Your task to perform on an android device: make emails show in primary in the gmail app Image 0: 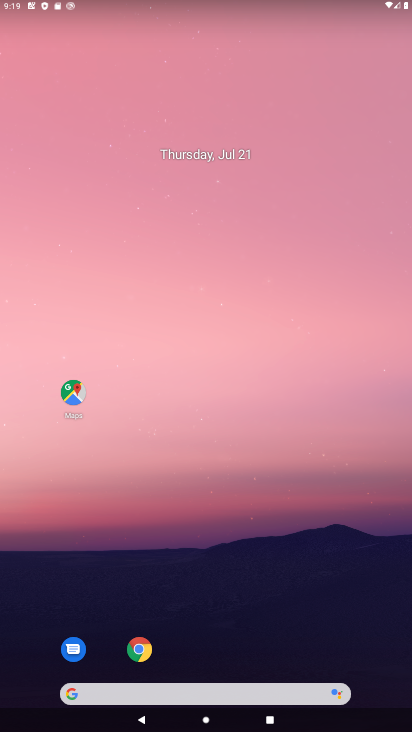
Step 0: drag from (238, 621) to (248, 17)
Your task to perform on an android device: make emails show in primary in the gmail app Image 1: 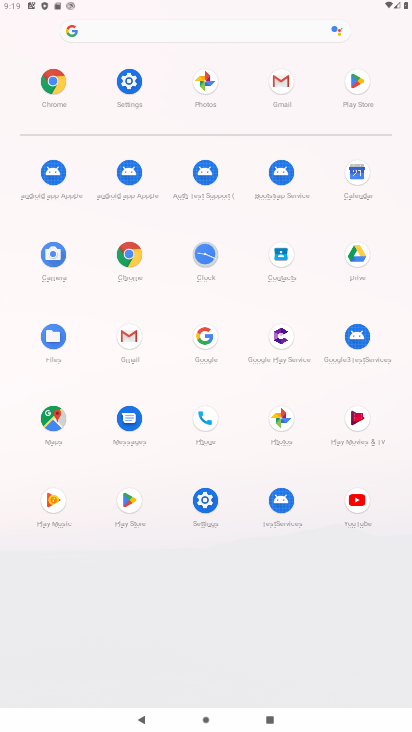
Step 1: click (135, 336)
Your task to perform on an android device: make emails show in primary in the gmail app Image 2: 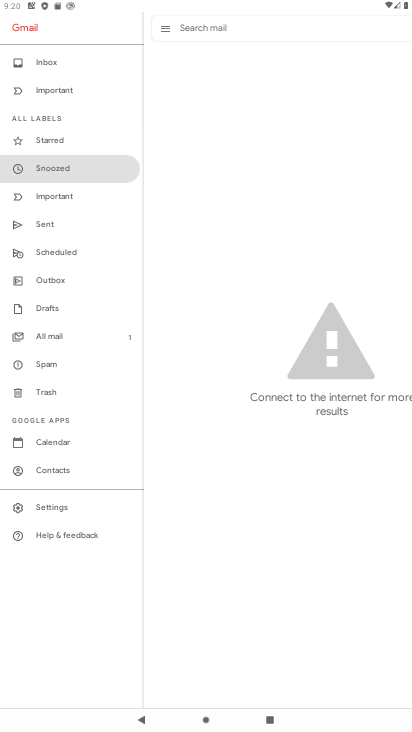
Step 2: click (55, 516)
Your task to perform on an android device: make emails show in primary in the gmail app Image 3: 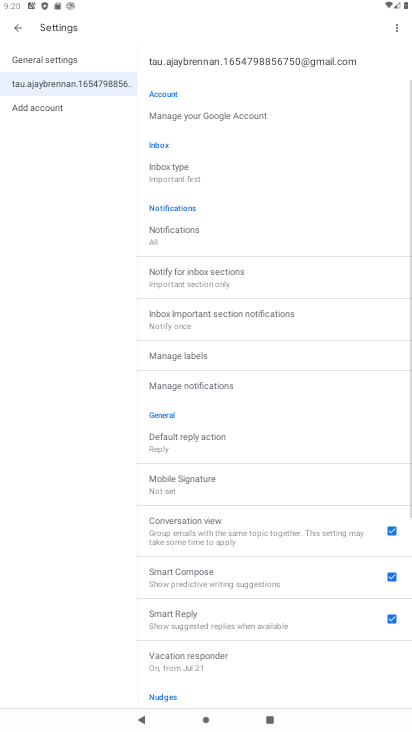
Step 3: click (171, 170)
Your task to perform on an android device: make emails show in primary in the gmail app Image 4: 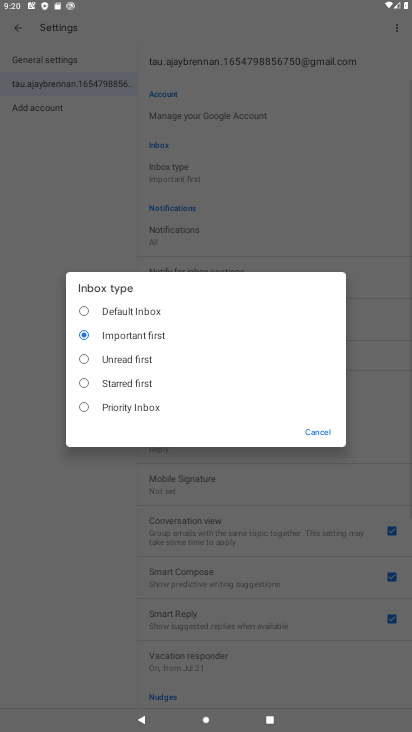
Step 4: click (106, 314)
Your task to perform on an android device: make emails show in primary in the gmail app Image 5: 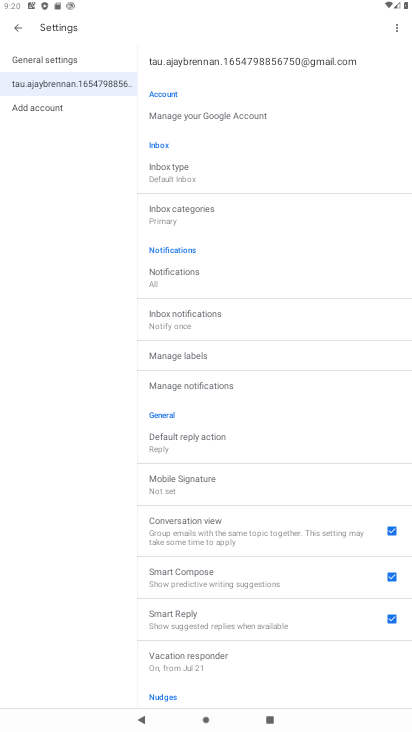
Step 5: task complete